Your task to perform on an android device: delete browsing data in the chrome app Image 0: 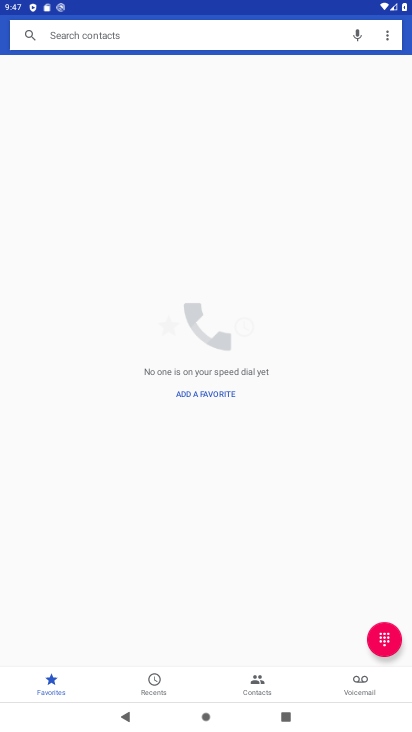
Step 0: press home button
Your task to perform on an android device: delete browsing data in the chrome app Image 1: 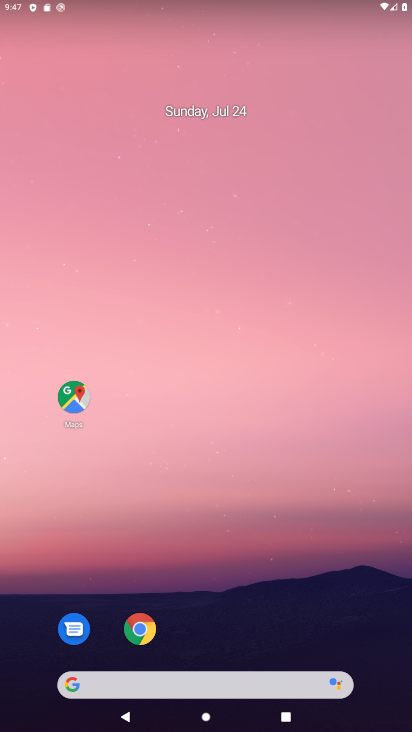
Step 1: click (141, 630)
Your task to perform on an android device: delete browsing data in the chrome app Image 2: 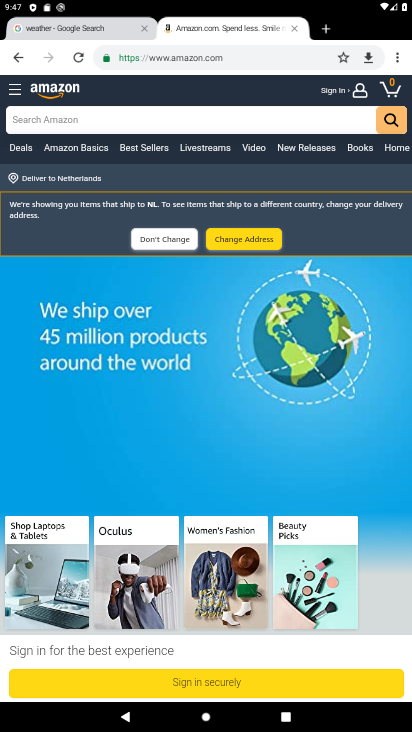
Step 2: click (398, 57)
Your task to perform on an android device: delete browsing data in the chrome app Image 3: 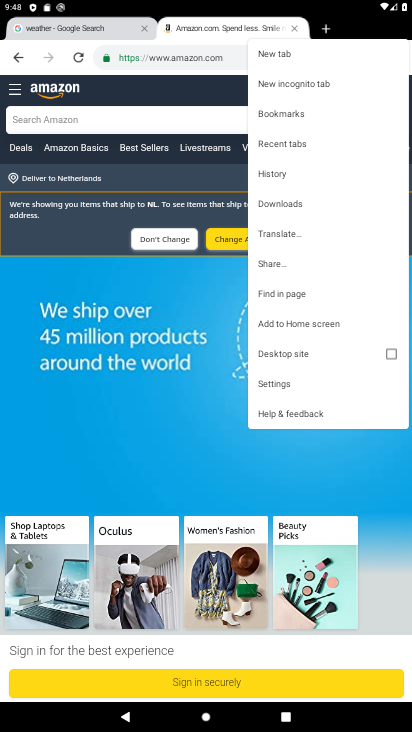
Step 3: click (279, 385)
Your task to perform on an android device: delete browsing data in the chrome app Image 4: 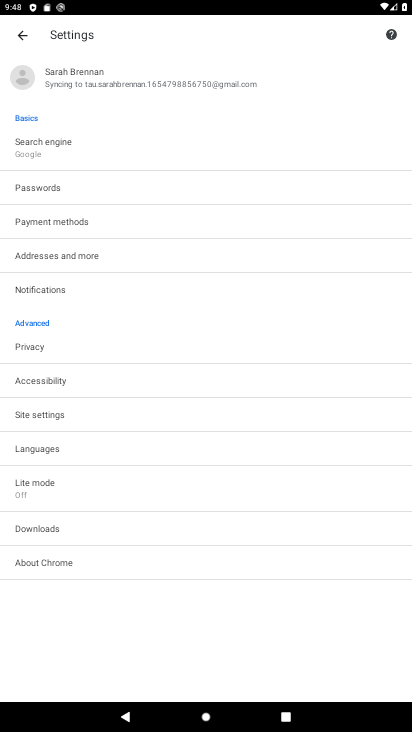
Step 4: click (35, 349)
Your task to perform on an android device: delete browsing data in the chrome app Image 5: 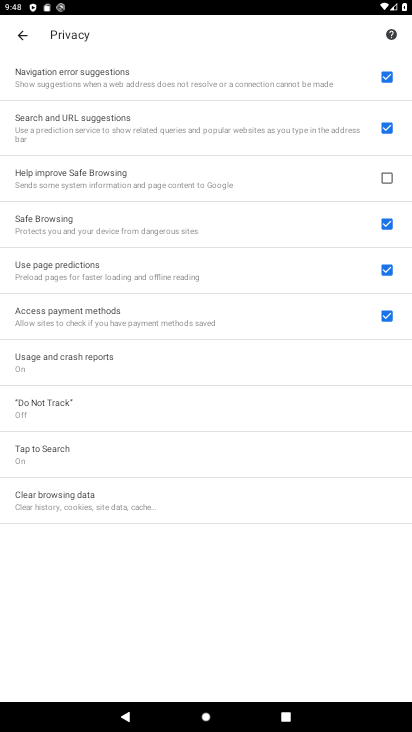
Step 5: click (44, 499)
Your task to perform on an android device: delete browsing data in the chrome app Image 6: 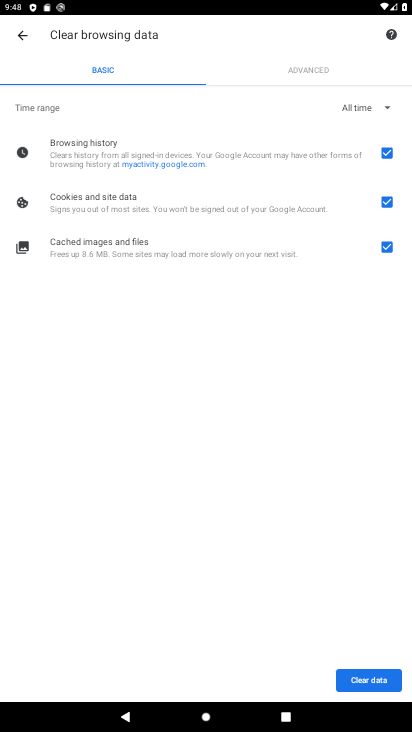
Step 6: click (378, 684)
Your task to perform on an android device: delete browsing data in the chrome app Image 7: 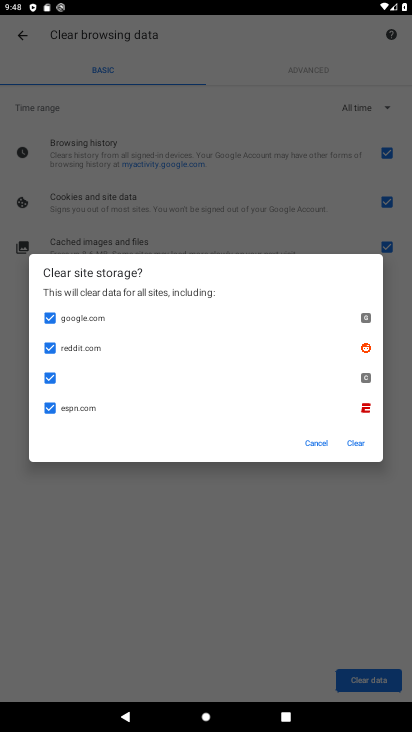
Step 7: click (355, 444)
Your task to perform on an android device: delete browsing data in the chrome app Image 8: 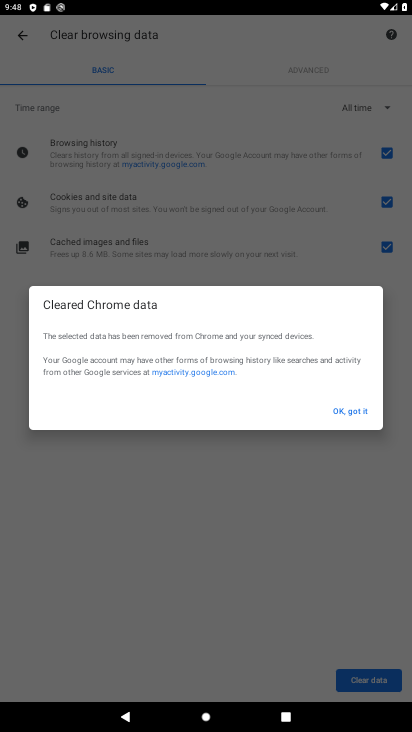
Step 8: click (357, 410)
Your task to perform on an android device: delete browsing data in the chrome app Image 9: 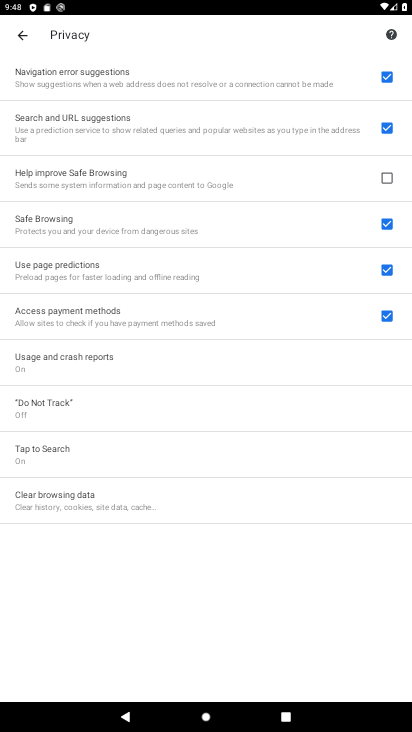
Step 9: task complete